Your task to perform on an android device: Search for vegetarian restaurants on Maps Image 0: 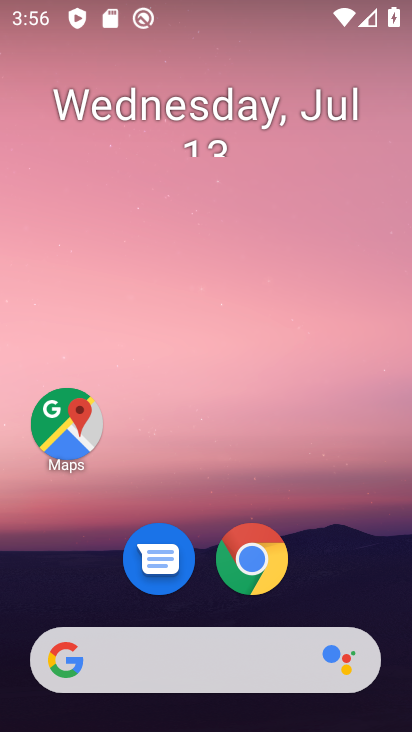
Step 0: drag from (203, 628) to (248, 127)
Your task to perform on an android device: Search for vegetarian restaurants on Maps Image 1: 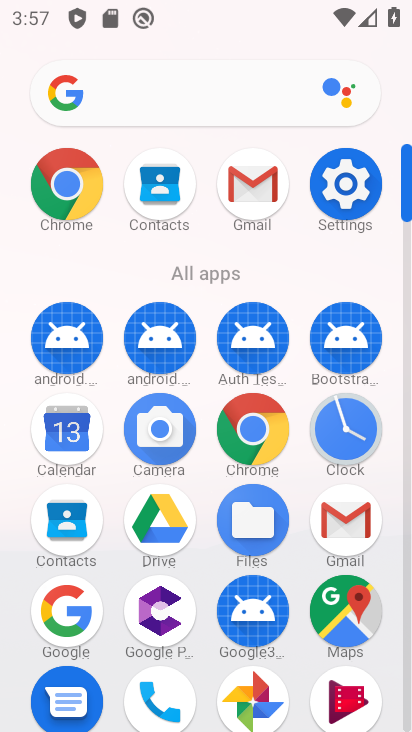
Step 1: click (344, 625)
Your task to perform on an android device: Search for vegetarian restaurants on Maps Image 2: 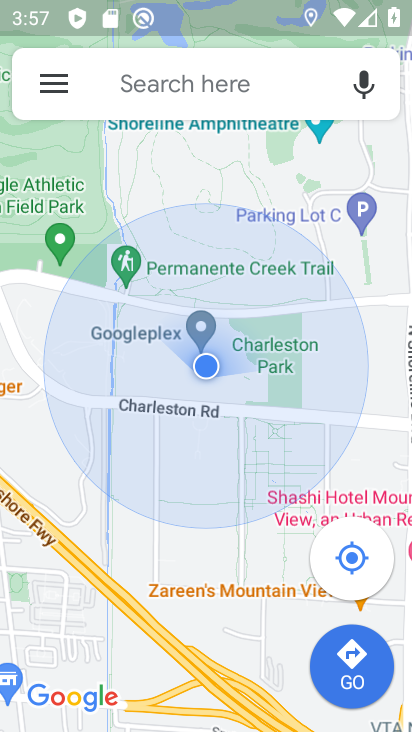
Step 2: click (177, 87)
Your task to perform on an android device: Search for vegetarian restaurants on Maps Image 3: 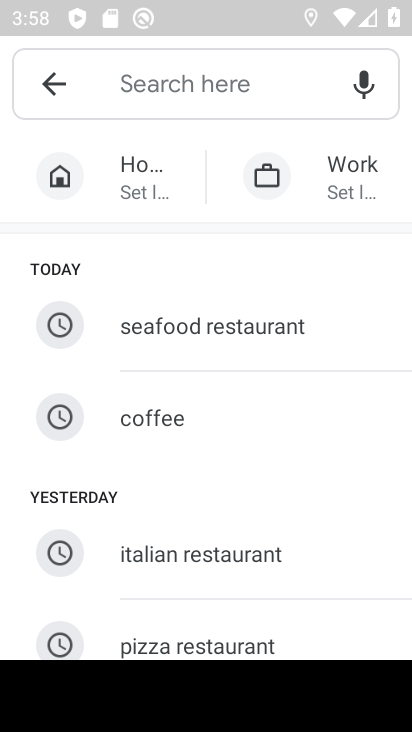
Step 3: drag from (215, 534) to (242, 134)
Your task to perform on an android device: Search for vegetarian restaurants on Maps Image 4: 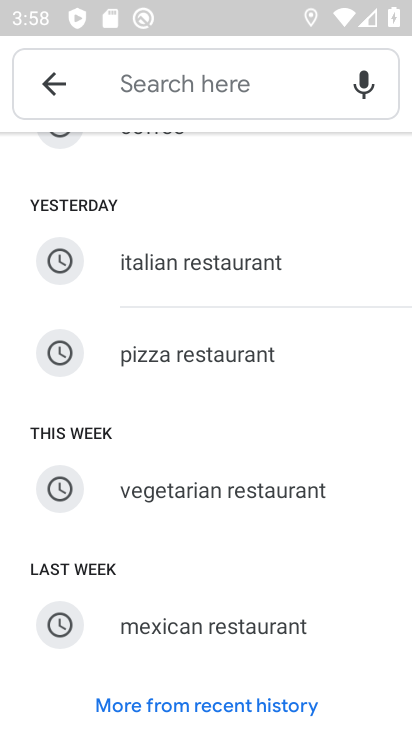
Step 4: click (221, 497)
Your task to perform on an android device: Search for vegetarian restaurants on Maps Image 5: 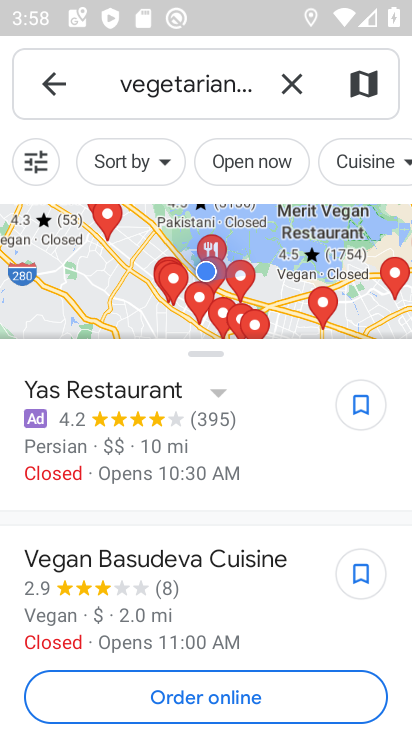
Step 5: task complete